Your task to perform on an android device: turn notification dots on Image 0: 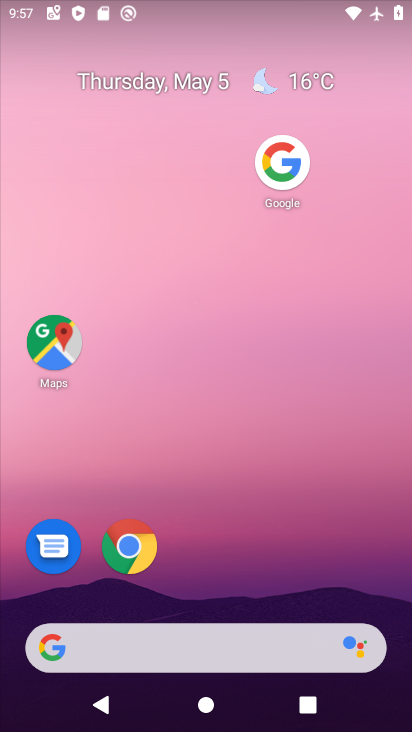
Step 0: drag from (181, 649) to (333, 146)
Your task to perform on an android device: turn notification dots on Image 1: 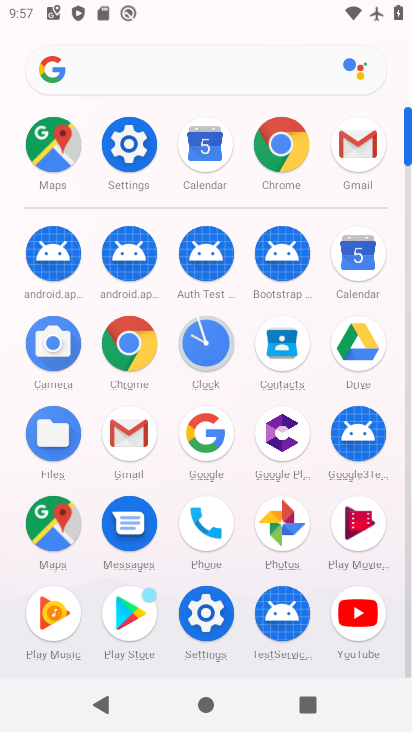
Step 1: click (134, 149)
Your task to perform on an android device: turn notification dots on Image 2: 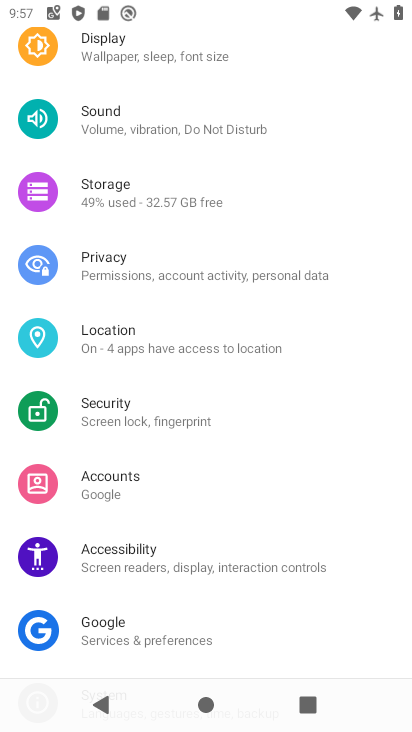
Step 2: drag from (341, 82) to (248, 494)
Your task to perform on an android device: turn notification dots on Image 3: 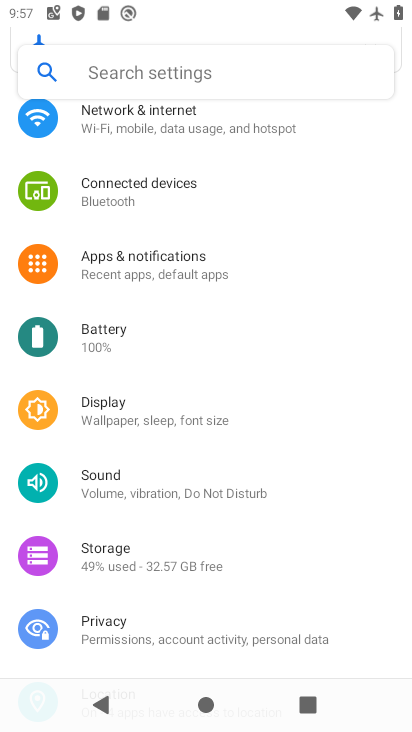
Step 3: drag from (296, 260) to (286, 403)
Your task to perform on an android device: turn notification dots on Image 4: 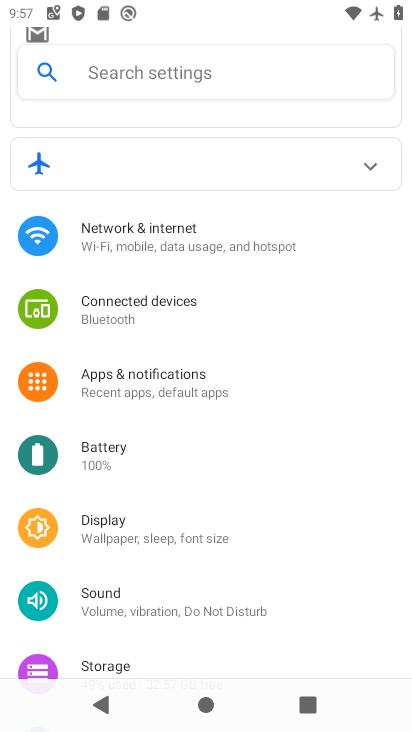
Step 4: click (171, 380)
Your task to perform on an android device: turn notification dots on Image 5: 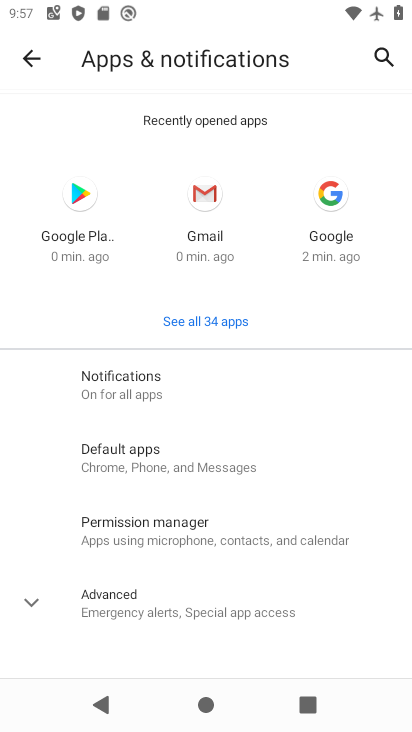
Step 5: click (139, 384)
Your task to perform on an android device: turn notification dots on Image 6: 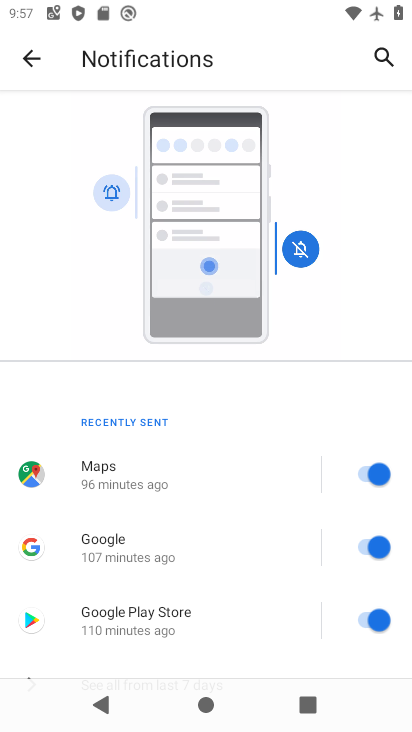
Step 6: drag from (218, 586) to (253, 254)
Your task to perform on an android device: turn notification dots on Image 7: 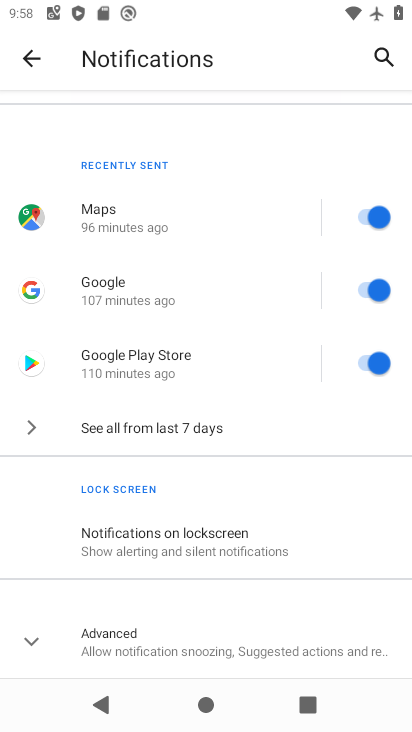
Step 7: drag from (180, 595) to (298, 332)
Your task to perform on an android device: turn notification dots on Image 8: 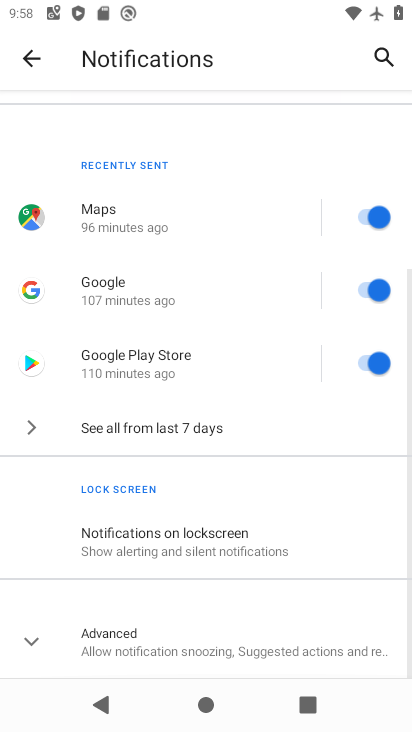
Step 8: click (111, 633)
Your task to perform on an android device: turn notification dots on Image 9: 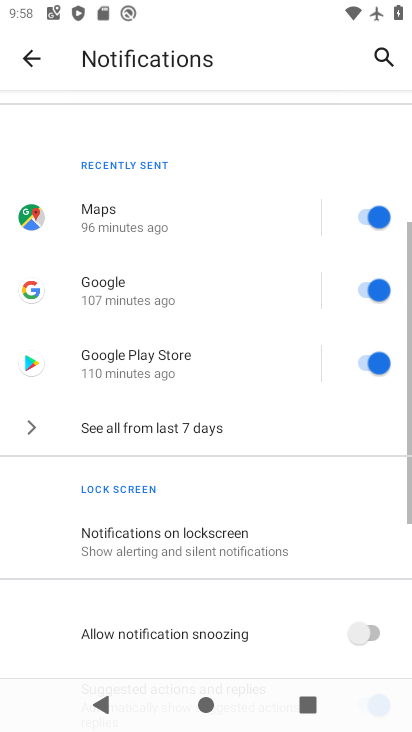
Step 9: task complete